Your task to perform on an android device: Open the calendar and show me this week's events? Image 0: 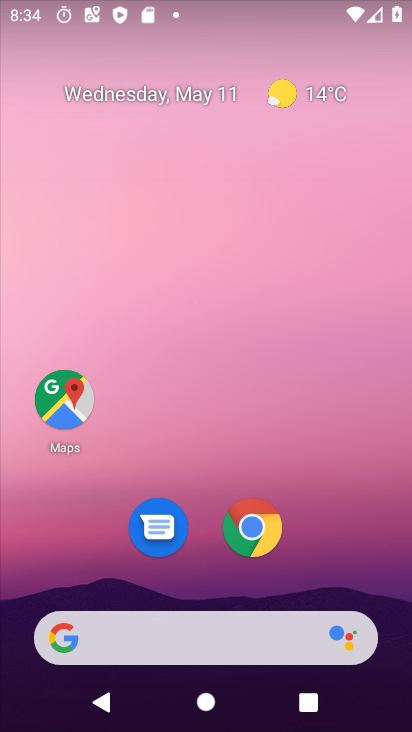
Step 0: drag from (241, 639) to (295, 185)
Your task to perform on an android device: Open the calendar and show me this week's events? Image 1: 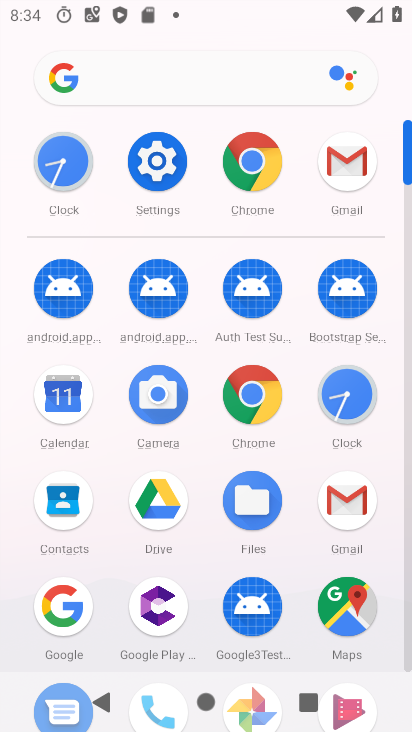
Step 1: drag from (235, 481) to (241, 323)
Your task to perform on an android device: Open the calendar and show me this week's events? Image 2: 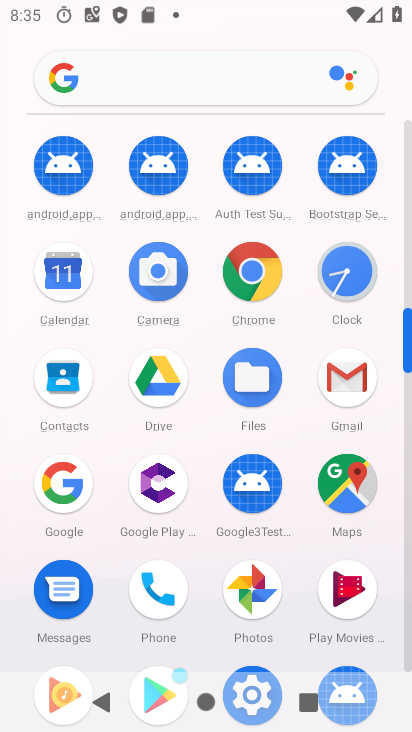
Step 2: click (73, 292)
Your task to perform on an android device: Open the calendar and show me this week's events? Image 3: 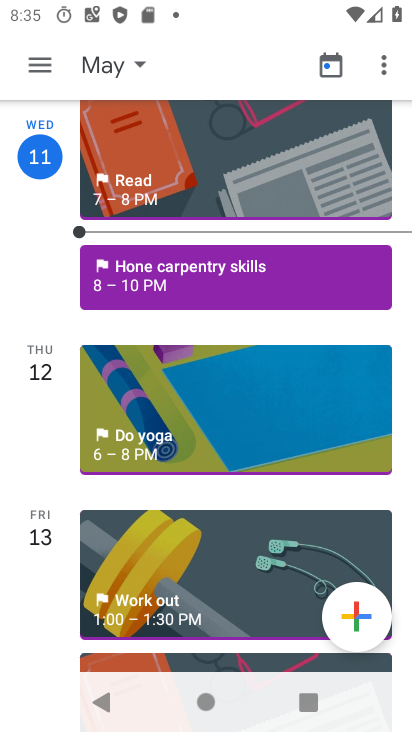
Step 3: task complete